Your task to perform on an android device: turn vacation reply on in the gmail app Image 0: 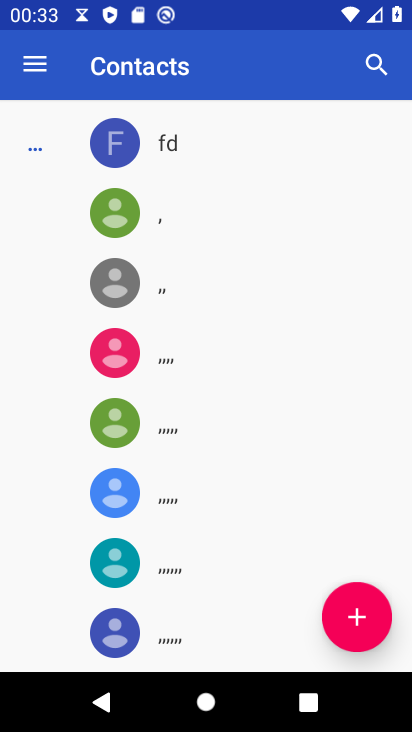
Step 0: press home button
Your task to perform on an android device: turn vacation reply on in the gmail app Image 1: 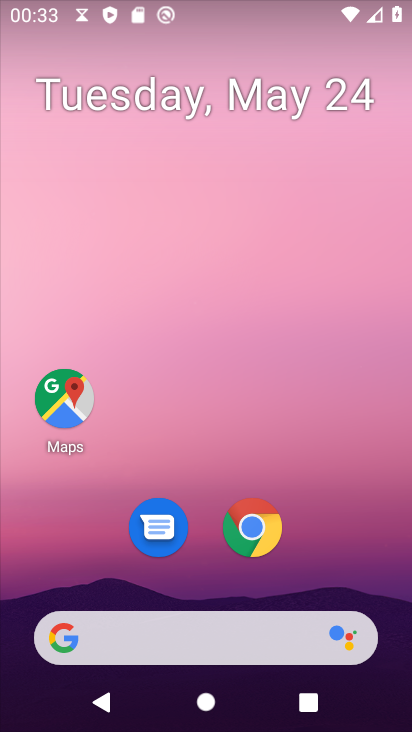
Step 1: drag from (161, 647) to (281, 185)
Your task to perform on an android device: turn vacation reply on in the gmail app Image 2: 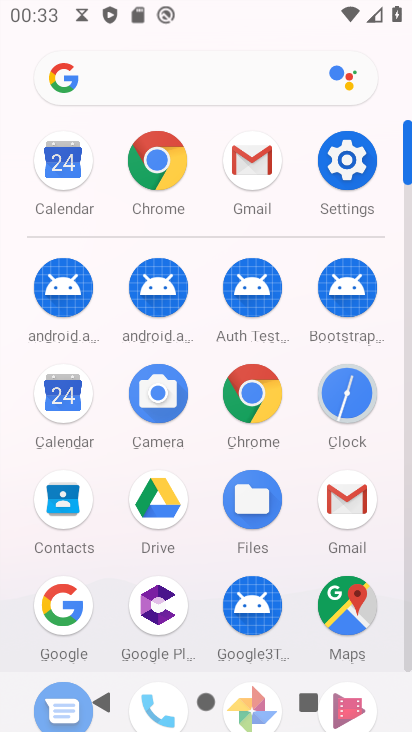
Step 2: click (253, 169)
Your task to perform on an android device: turn vacation reply on in the gmail app Image 3: 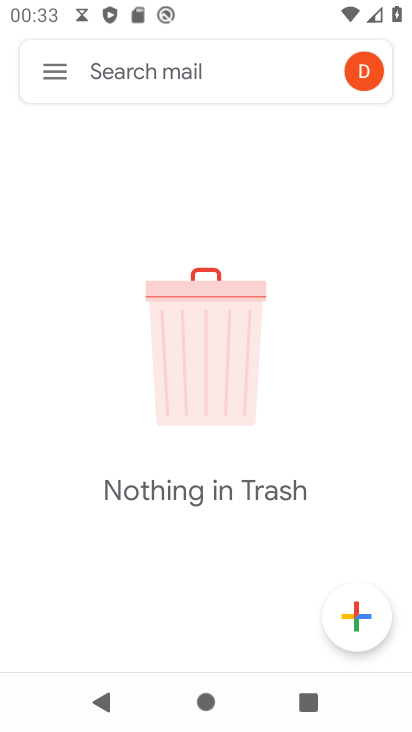
Step 3: click (58, 70)
Your task to perform on an android device: turn vacation reply on in the gmail app Image 4: 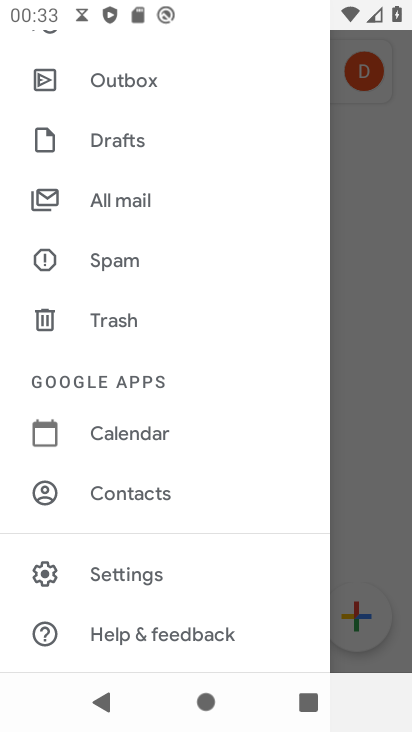
Step 4: click (121, 576)
Your task to perform on an android device: turn vacation reply on in the gmail app Image 5: 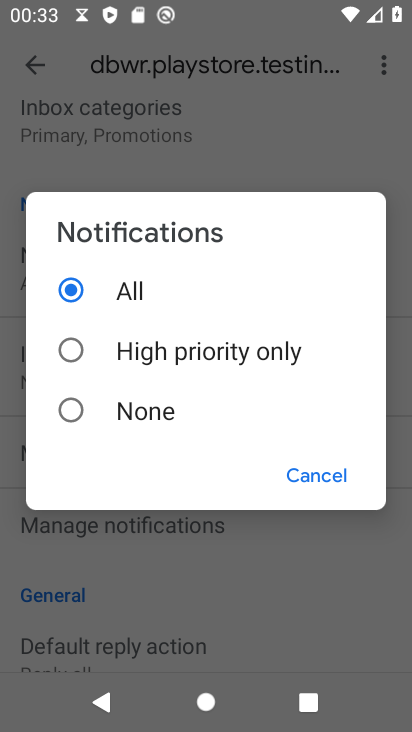
Step 5: click (309, 475)
Your task to perform on an android device: turn vacation reply on in the gmail app Image 6: 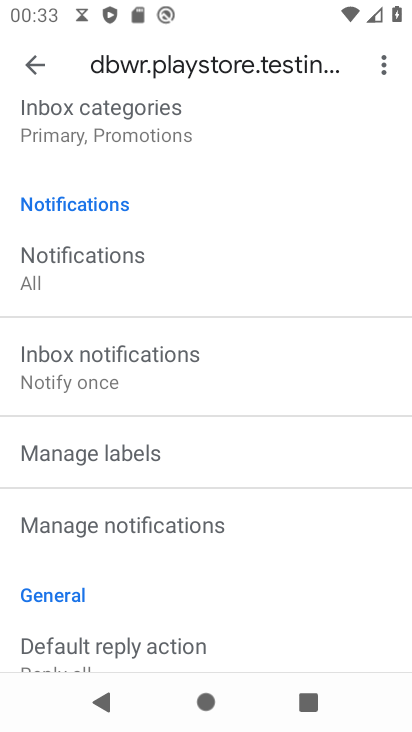
Step 6: drag from (170, 583) to (265, 206)
Your task to perform on an android device: turn vacation reply on in the gmail app Image 7: 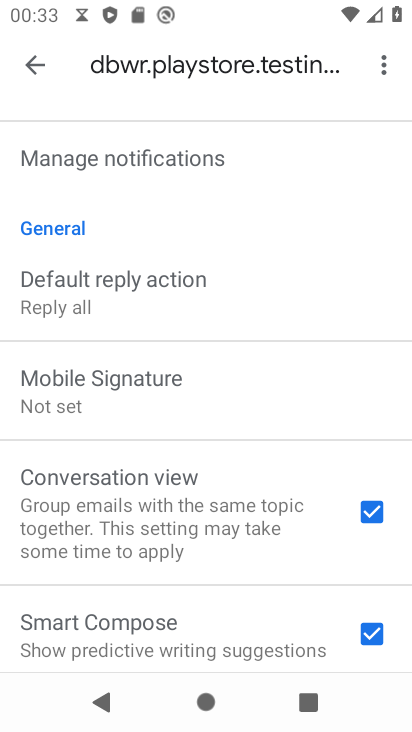
Step 7: drag from (144, 608) to (230, 249)
Your task to perform on an android device: turn vacation reply on in the gmail app Image 8: 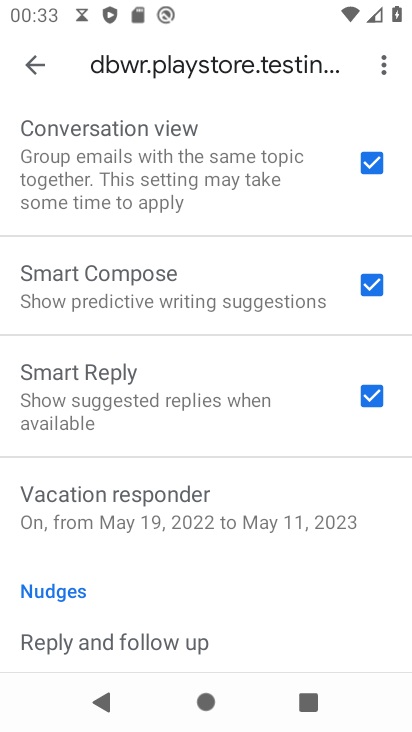
Step 8: click (135, 495)
Your task to perform on an android device: turn vacation reply on in the gmail app Image 9: 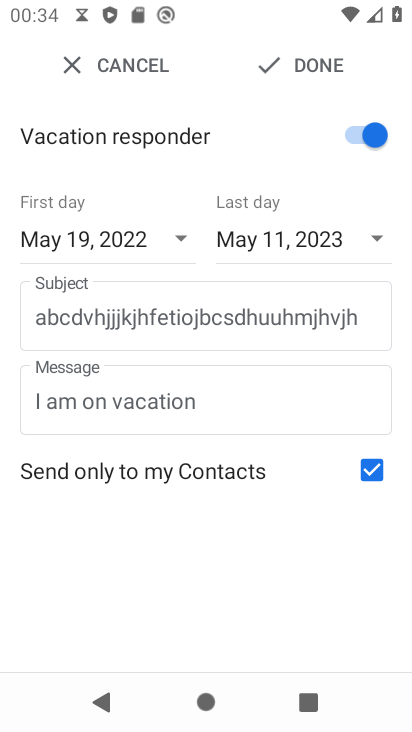
Step 9: task complete